Your task to perform on an android device: Open internet settings Image 0: 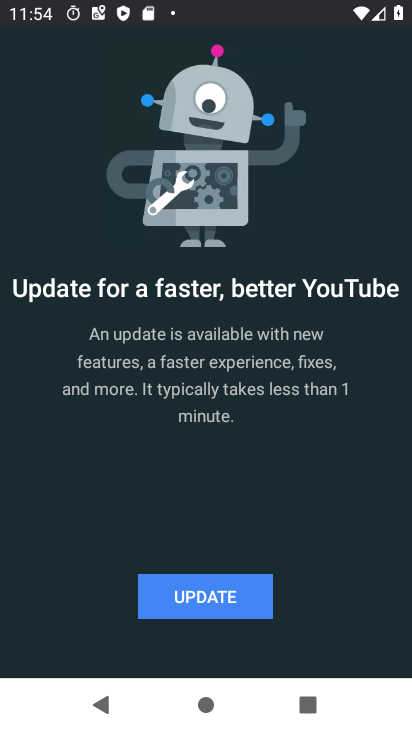
Step 0: press home button
Your task to perform on an android device: Open internet settings Image 1: 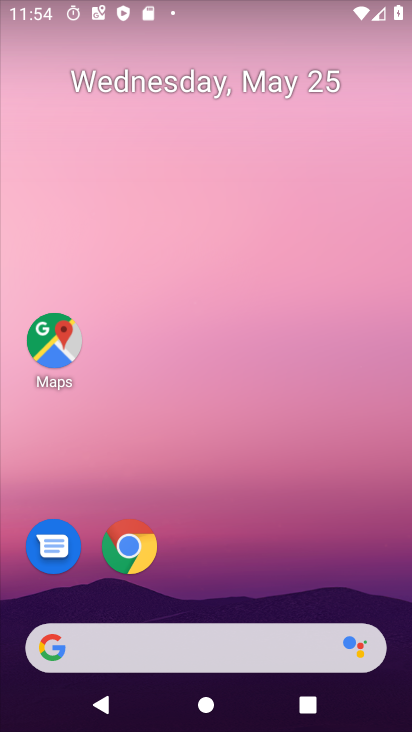
Step 1: drag from (260, 586) to (292, 25)
Your task to perform on an android device: Open internet settings Image 2: 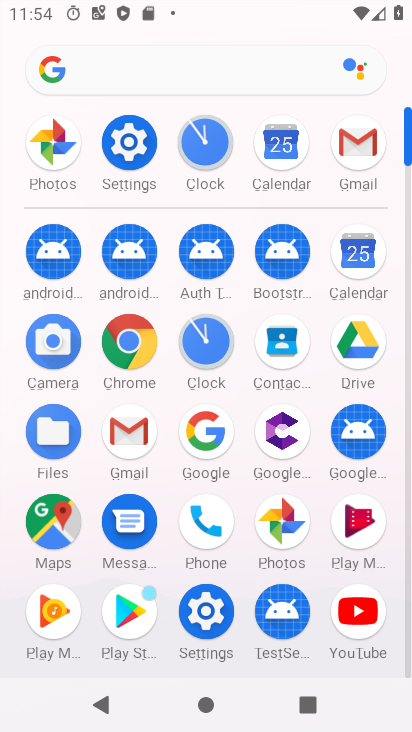
Step 2: click (120, 138)
Your task to perform on an android device: Open internet settings Image 3: 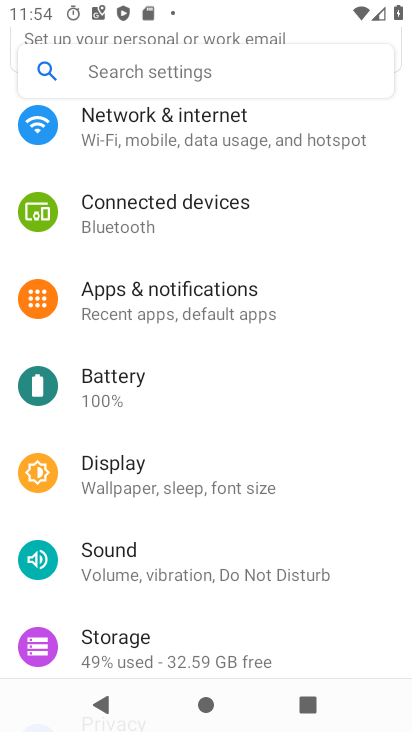
Step 3: click (175, 145)
Your task to perform on an android device: Open internet settings Image 4: 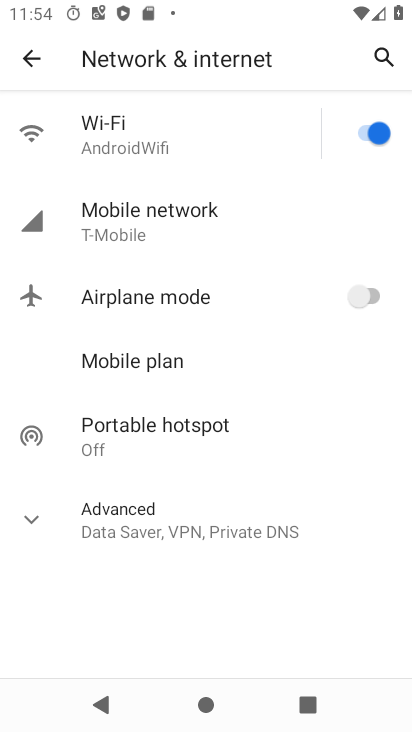
Step 4: click (169, 215)
Your task to perform on an android device: Open internet settings Image 5: 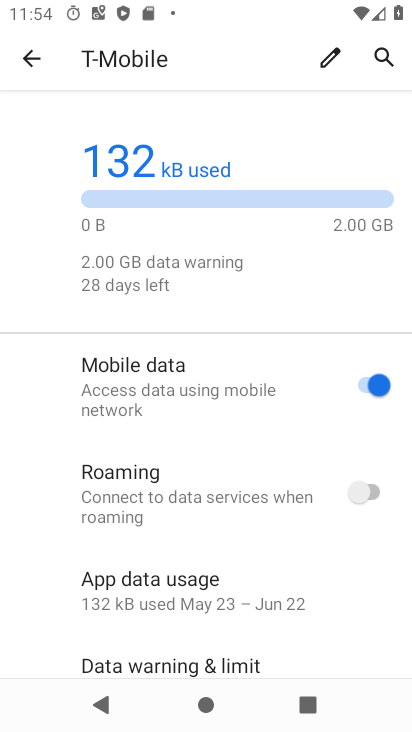
Step 5: task complete